Your task to perform on an android device: Open Reddit.com Image 0: 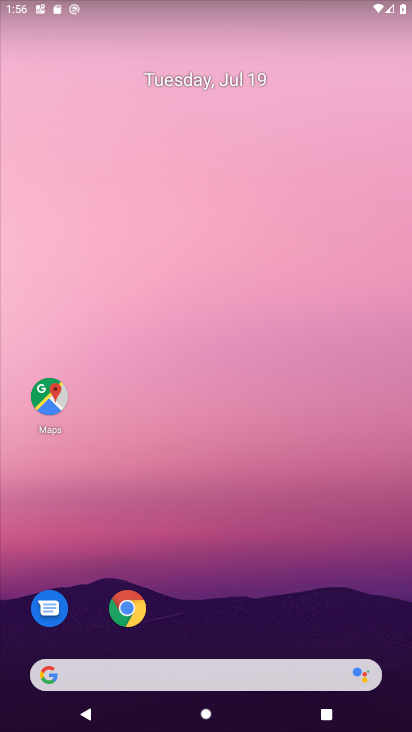
Step 0: drag from (238, 603) to (247, 102)
Your task to perform on an android device: Open Reddit.com Image 1: 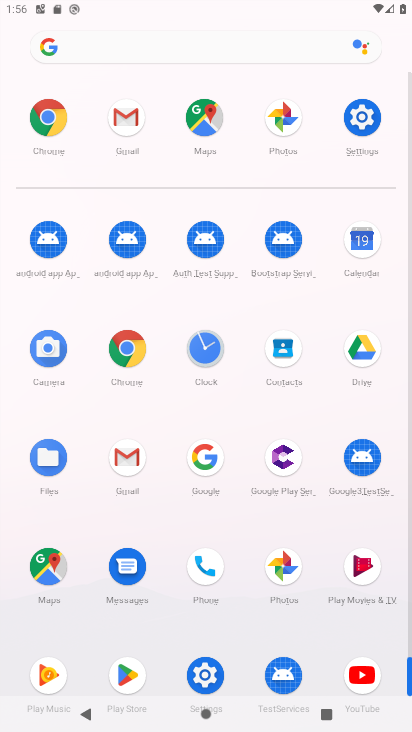
Step 1: click (124, 345)
Your task to perform on an android device: Open Reddit.com Image 2: 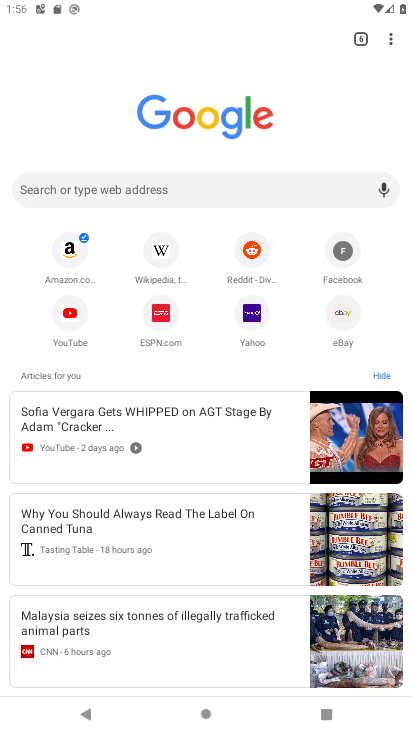
Step 2: click (146, 182)
Your task to perform on an android device: Open Reddit.com Image 3: 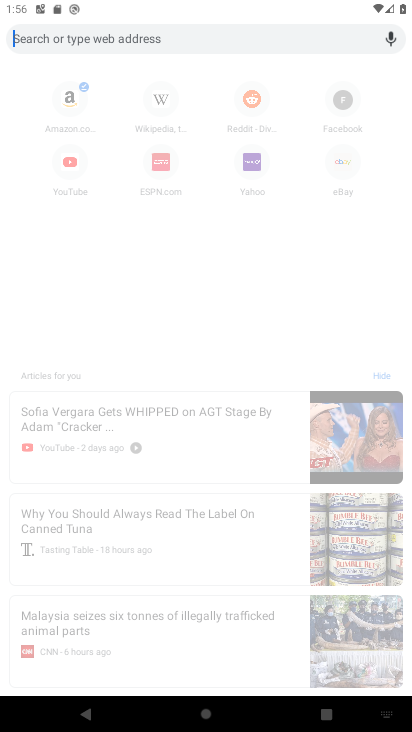
Step 3: type "Reddit.com"
Your task to perform on an android device: Open Reddit.com Image 4: 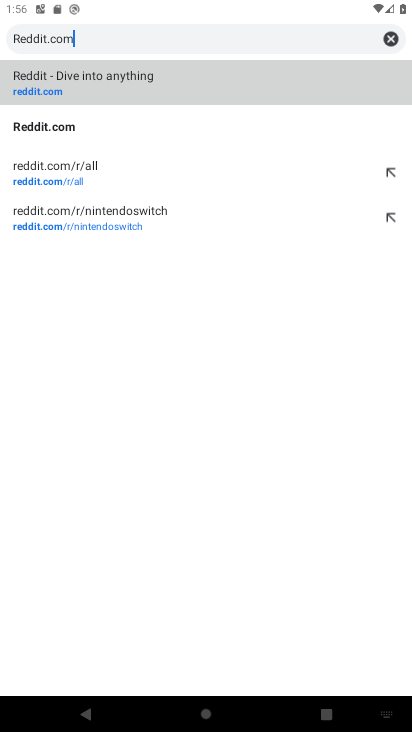
Step 4: type ""
Your task to perform on an android device: Open Reddit.com Image 5: 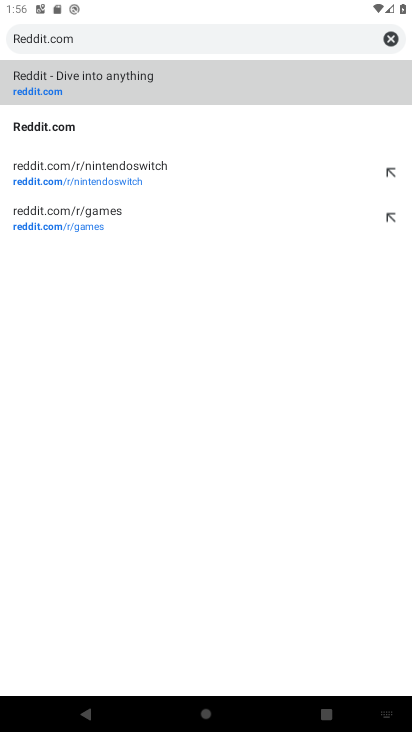
Step 5: click (91, 95)
Your task to perform on an android device: Open Reddit.com Image 6: 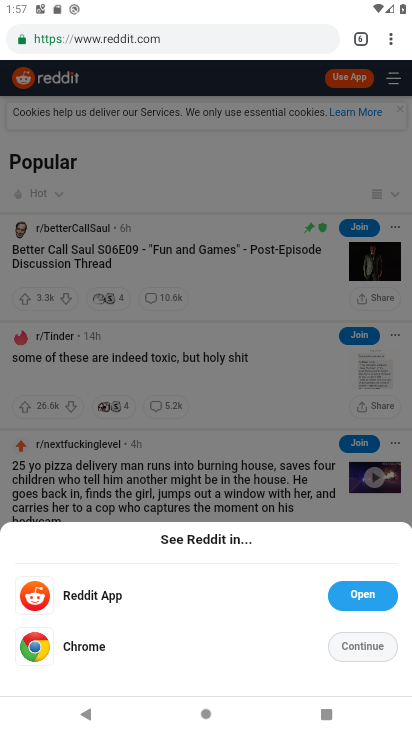
Step 6: click (364, 656)
Your task to perform on an android device: Open Reddit.com Image 7: 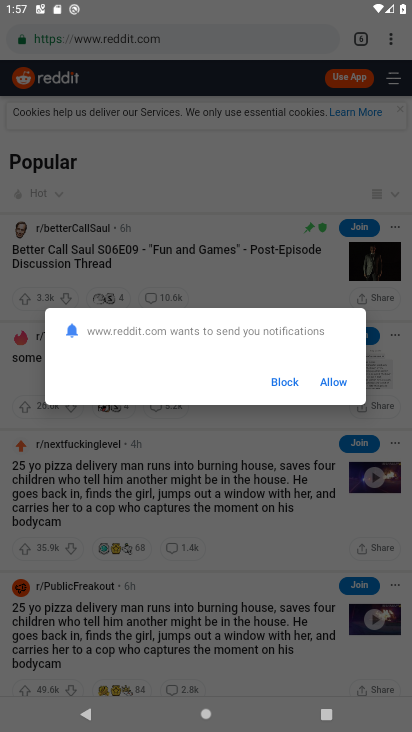
Step 7: click (291, 379)
Your task to perform on an android device: Open Reddit.com Image 8: 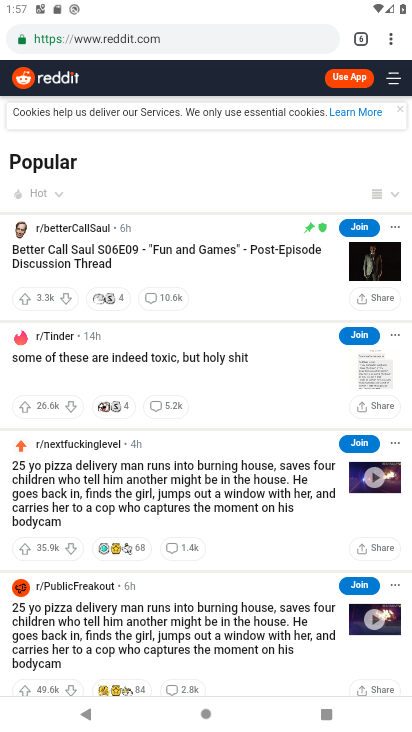
Step 8: task complete